Your task to perform on an android device: Open location settings Image 0: 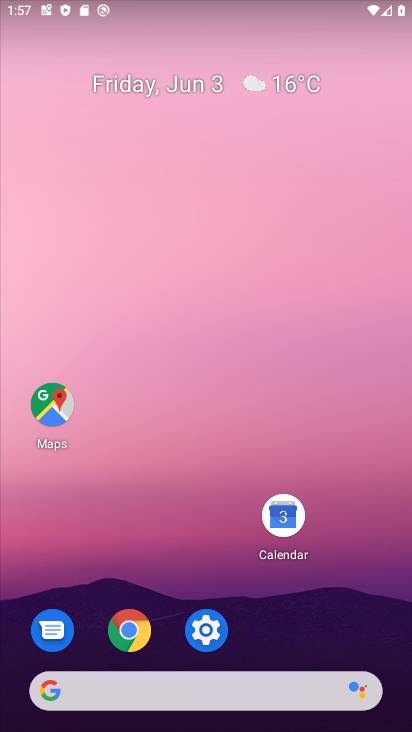
Step 0: press home button
Your task to perform on an android device: Open location settings Image 1: 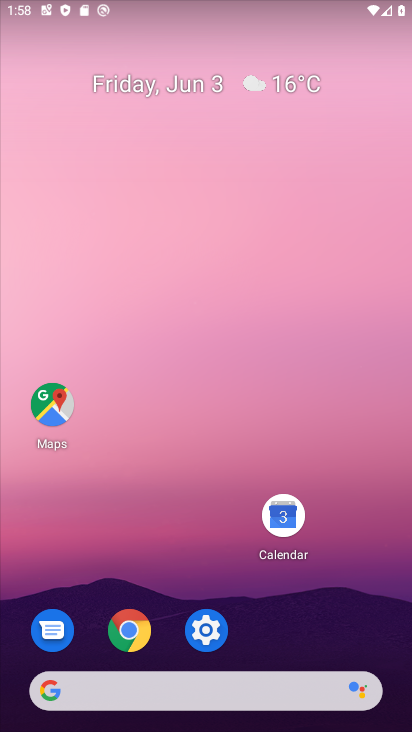
Step 1: drag from (278, 692) to (219, 35)
Your task to perform on an android device: Open location settings Image 2: 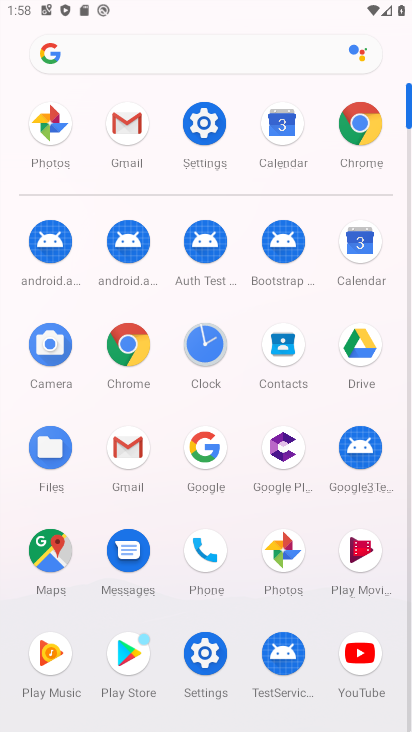
Step 2: click (205, 139)
Your task to perform on an android device: Open location settings Image 3: 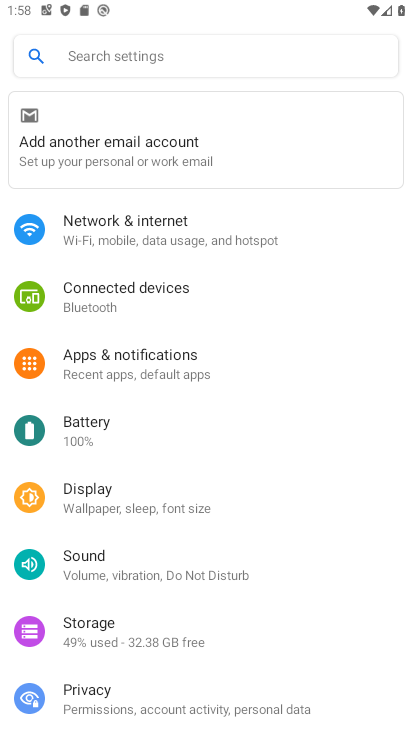
Step 3: click (178, 52)
Your task to perform on an android device: Open location settings Image 4: 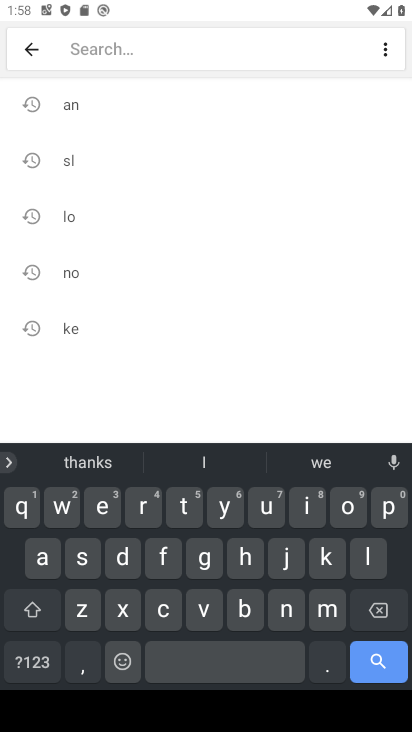
Step 4: click (370, 548)
Your task to perform on an android device: Open location settings Image 5: 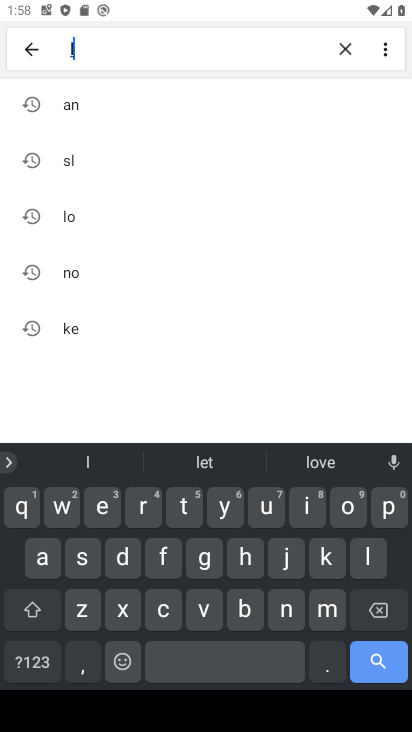
Step 5: click (352, 513)
Your task to perform on an android device: Open location settings Image 6: 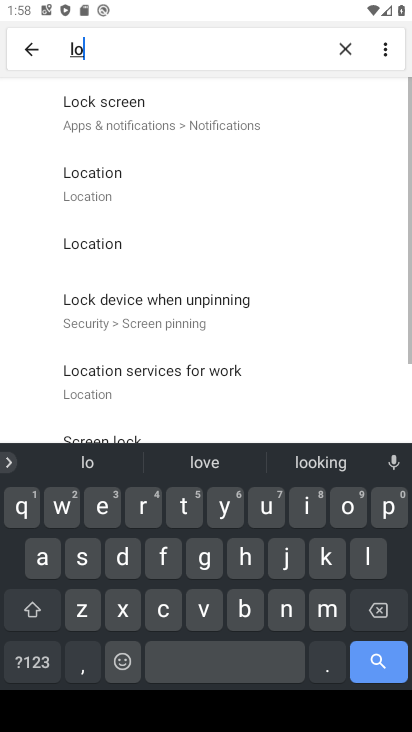
Step 6: click (140, 119)
Your task to perform on an android device: Open location settings Image 7: 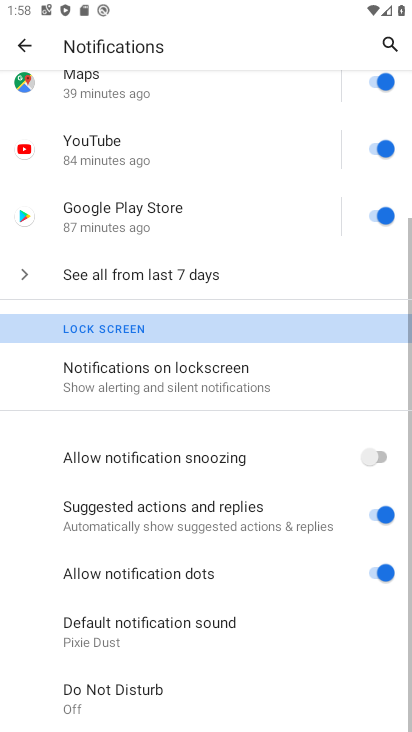
Step 7: click (13, 39)
Your task to perform on an android device: Open location settings Image 8: 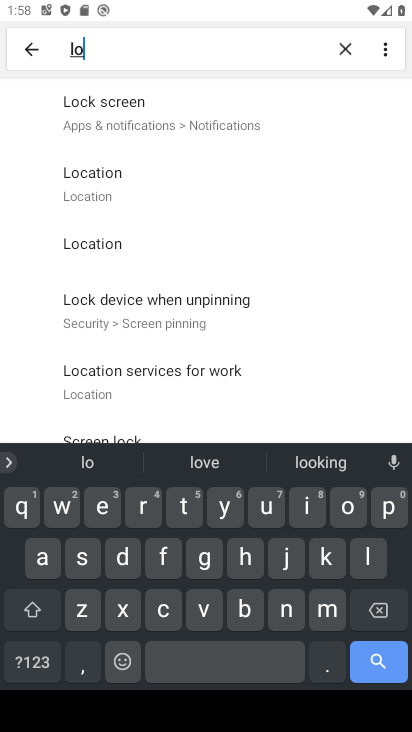
Step 8: click (129, 204)
Your task to perform on an android device: Open location settings Image 9: 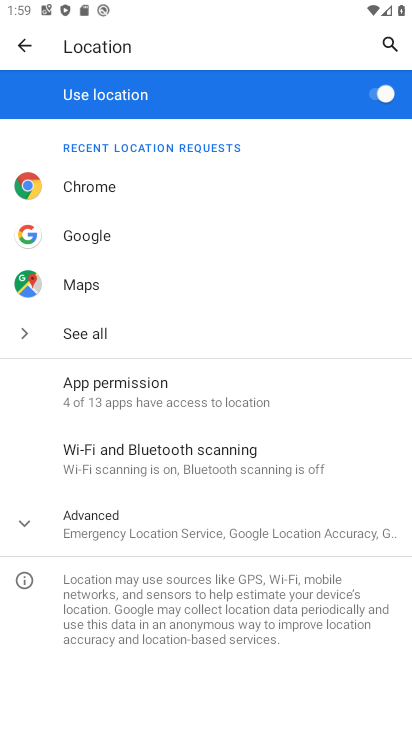
Step 9: task complete